Your task to perform on an android device: Go to Yahoo.com Image 0: 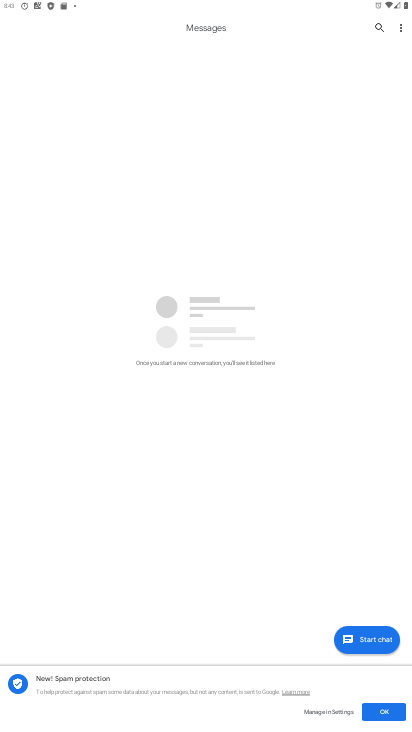
Step 0: press home button
Your task to perform on an android device: Go to Yahoo.com Image 1: 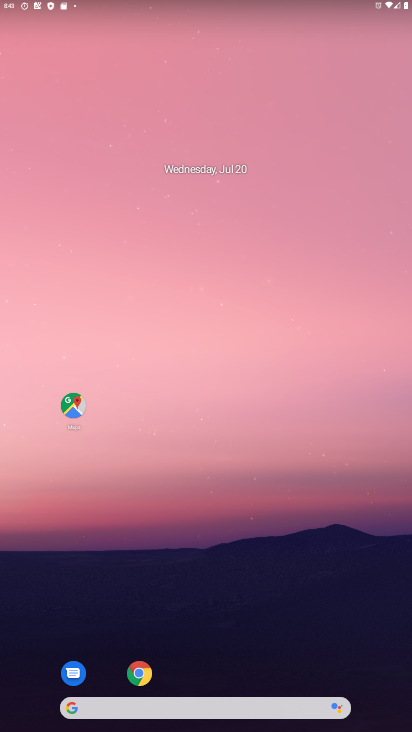
Step 1: click (138, 669)
Your task to perform on an android device: Go to Yahoo.com Image 2: 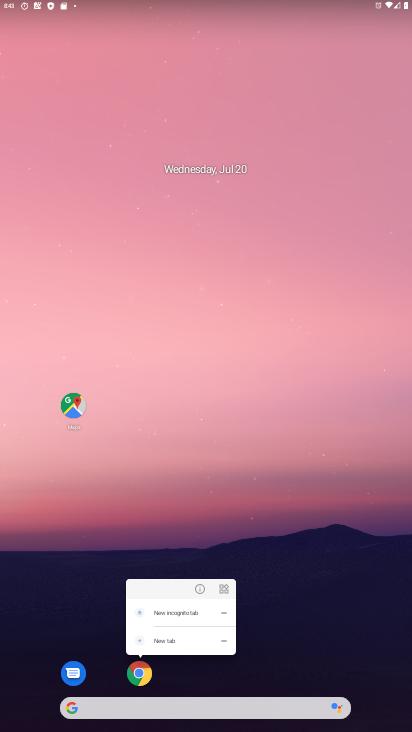
Step 2: click (139, 674)
Your task to perform on an android device: Go to Yahoo.com Image 3: 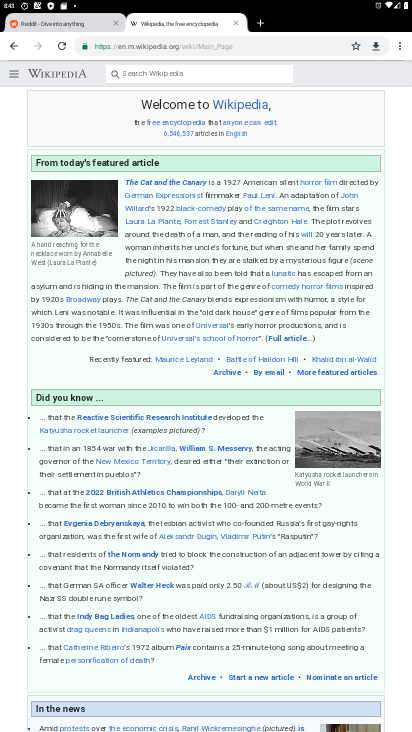
Step 3: click (258, 20)
Your task to perform on an android device: Go to Yahoo.com Image 4: 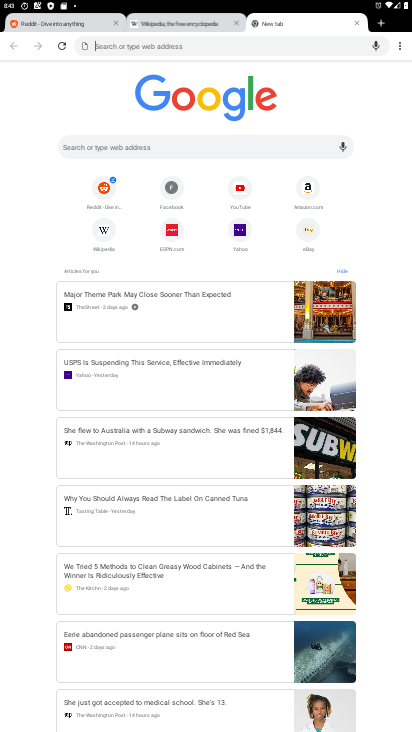
Step 4: click (235, 234)
Your task to perform on an android device: Go to Yahoo.com Image 5: 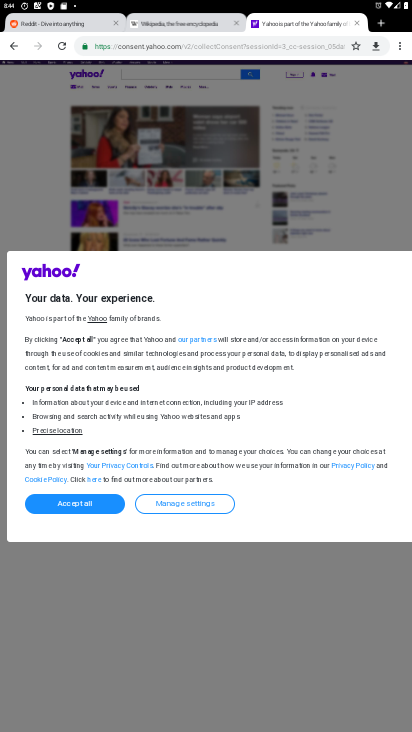
Step 5: task complete